Your task to perform on an android device: Check the news Image 0: 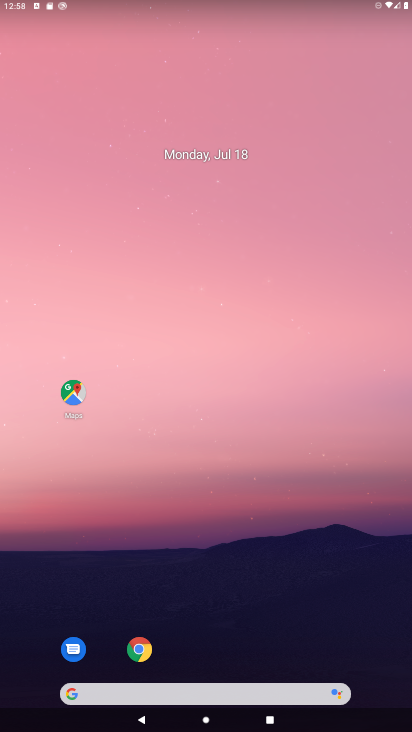
Step 0: drag from (3, 304) to (389, 309)
Your task to perform on an android device: Check the news Image 1: 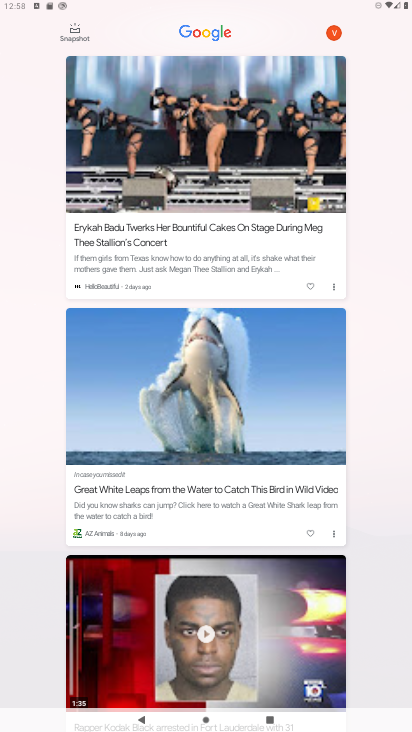
Step 1: task complete